Your task to perform on an android device: Open settings on Google Maps Image 0: 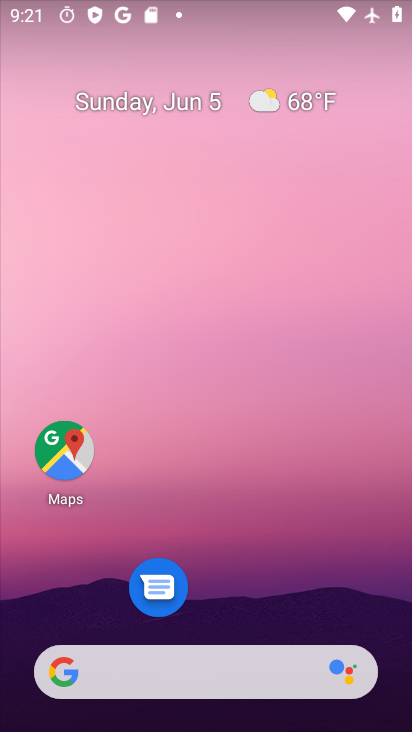
Step 0: drag from (293, 533) to (270, 148)
Your task to perform on an android device: Open settings on Google Maps Image 1: 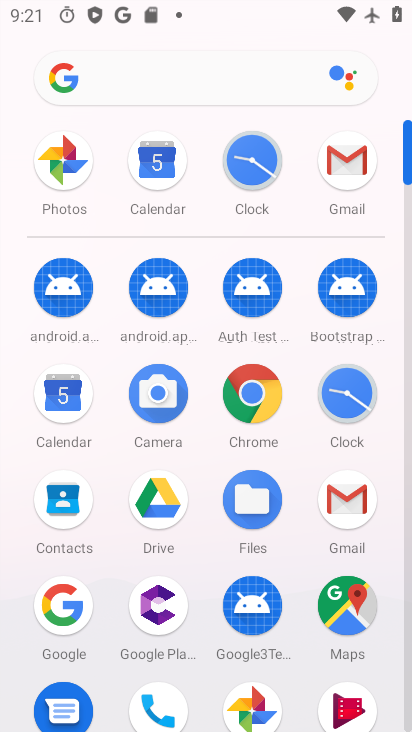
Step 1: click (349, 600)
Your task to perform on an android device: Open settings on Google Maps Image 2: 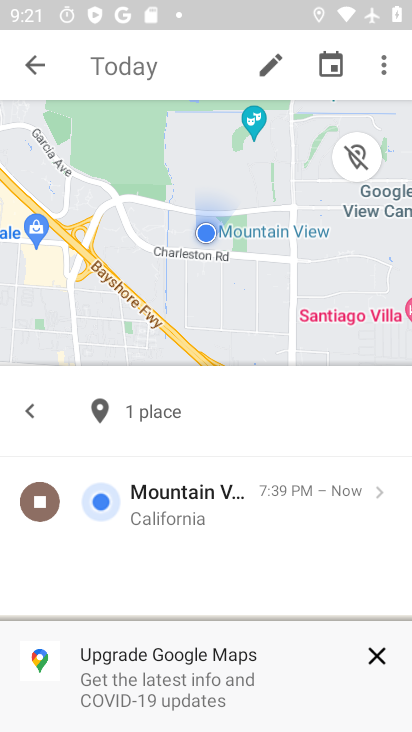
Step 2: click (373, 653)
Your task to perform on an android device: Open settings on Google Maps Image 3: 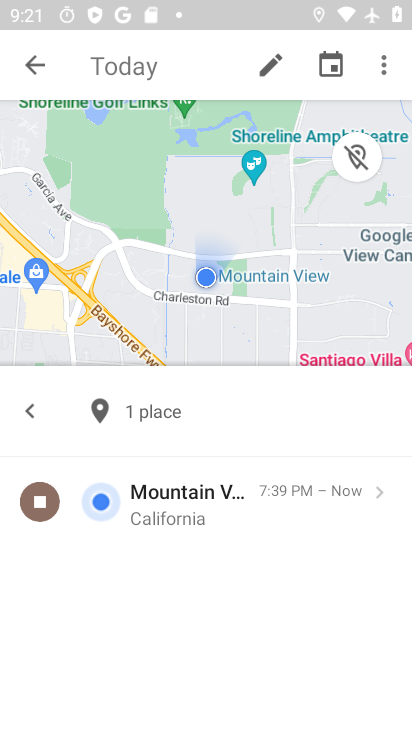
Step 3: click (28, 67)
Your task to perform on an android device: Open settings on Google Maps Image 4: 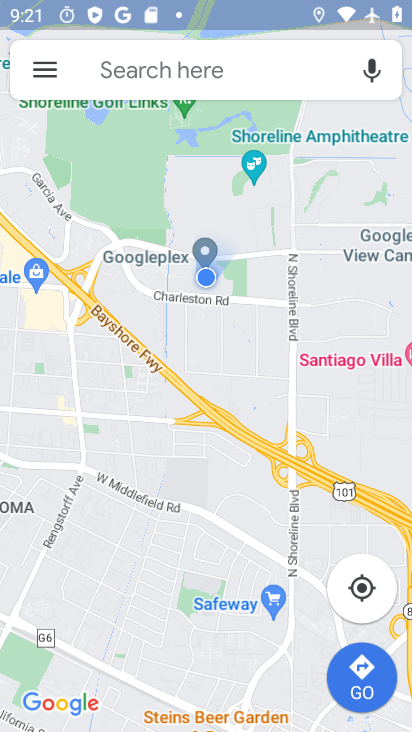
Step 4: click (28, 67)
Your task to perform on an android device: Open settings on Google Maps Image 5: 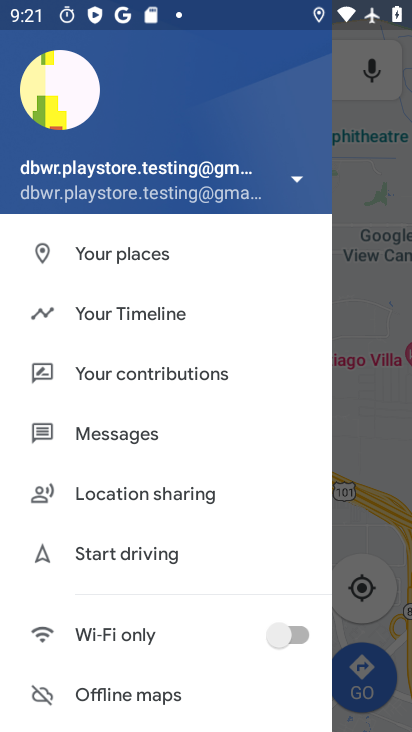
Step 5: drag from (147, 656) to (113, 274)
Your task to perform on an android device: Open settings on Google Maps Image 6: 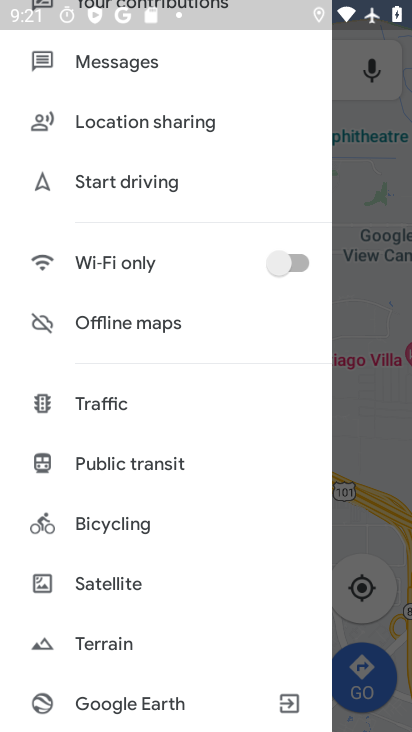
Step 6: drag from (152, 701) to (130, 303)
Your task to perform on an android device: Open settings on Google Maps Image 7: 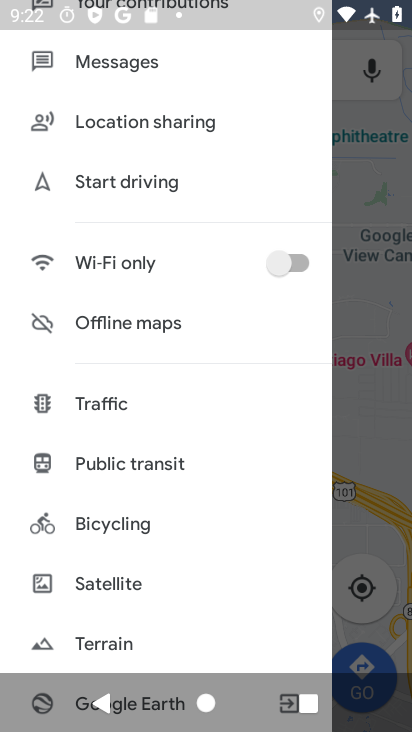
Step 7: drag from (167, 626) to (148, 230)
Your task to perform on an android device: Open settings on Google Maps Image 8: 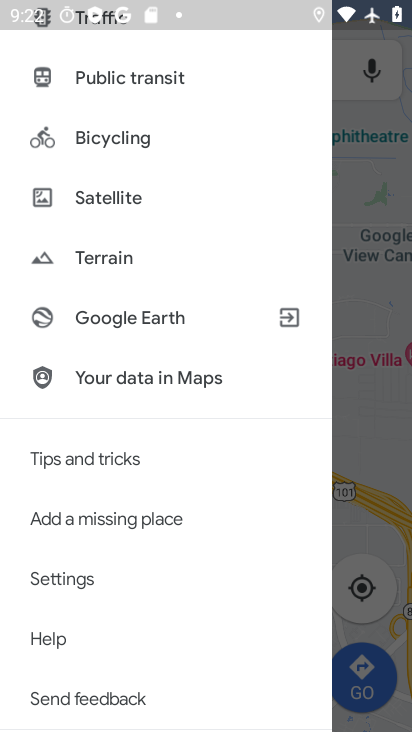
Step 8: click (83, 582)
Your task to perform on an android device: Open settings on Google Maps Image 9: 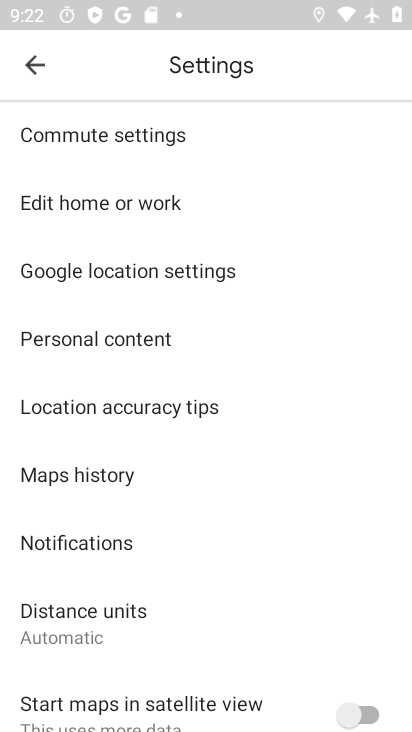
Step 9: task complete